Your task to perform on an android device: turn off smart reply in the gmail app Image 0: 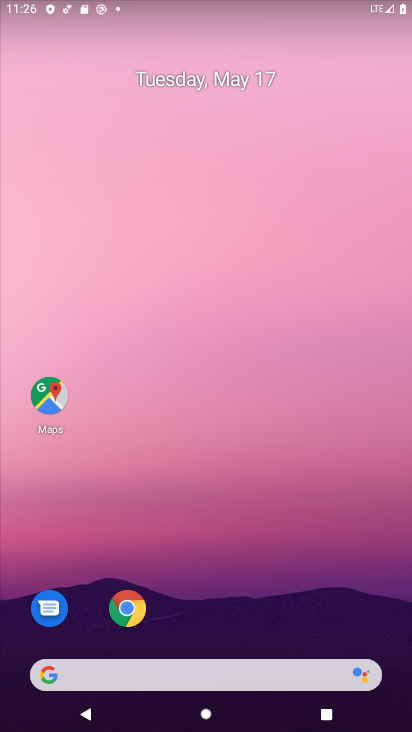
Step 0: drag from (299, 597) to (195, 95)
Your task to perform on an android device: turn off smart reply in the gmail app Image 1: 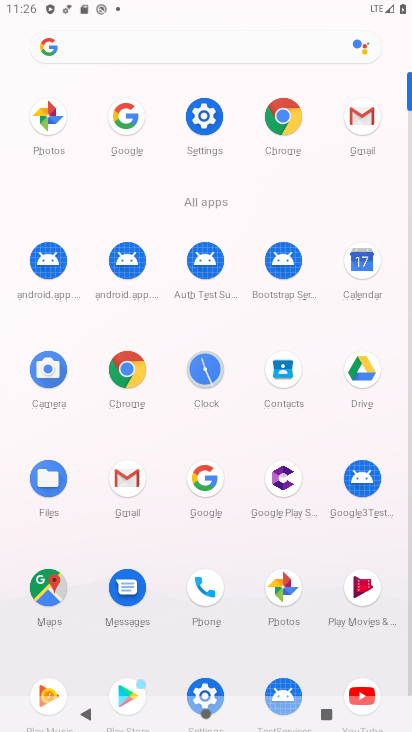
Step 1: click (123, 480)
Your task to perform on an android device: turn off smart reply in the gmail app Image 2: 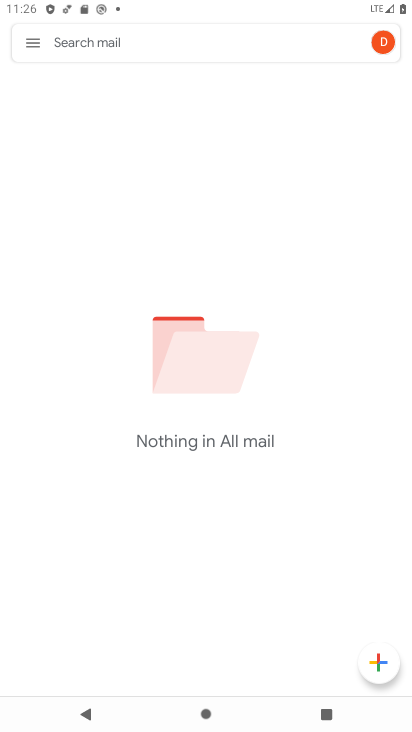
Step 2: click (28, 43)
Your task to perform on an android device: turn off smart reply in the gmail app Image 3: 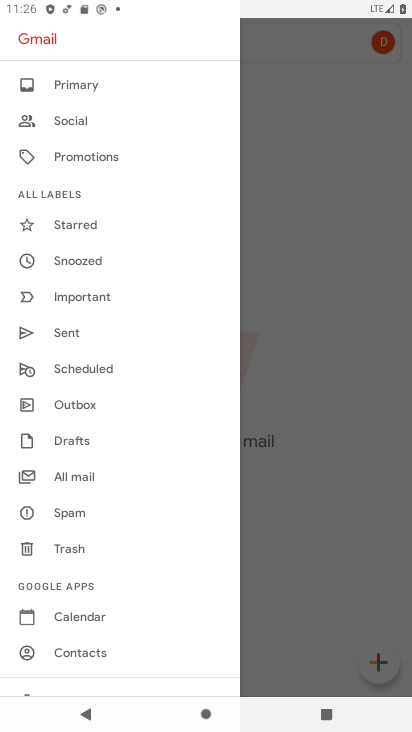
Step 3: drag from (117, 584) to (111, 259)
Your task to perform on an android device: turn off smart reply in the gmail app Image 4: 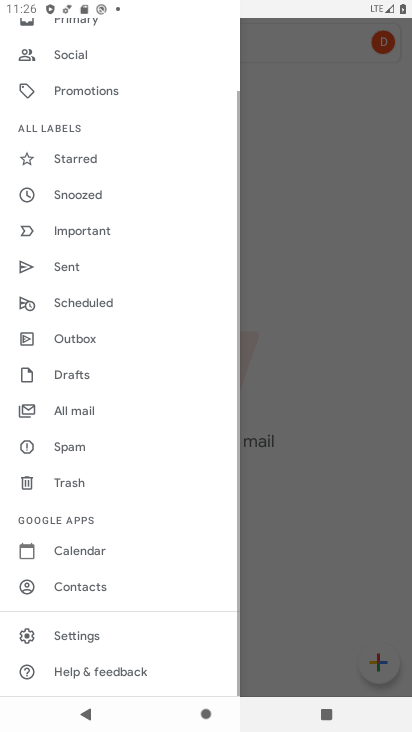
Step 4: click (113, 639)
Your task to perform on an android device: turn off smart reply in the gmail app Image 5: 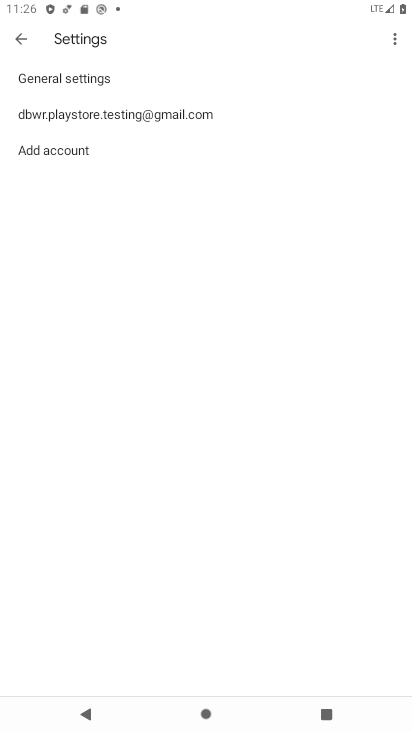
Step 5: click (143, 115)
Your task to perform on an android device: turn off smart reply in the gmail app Image 6: 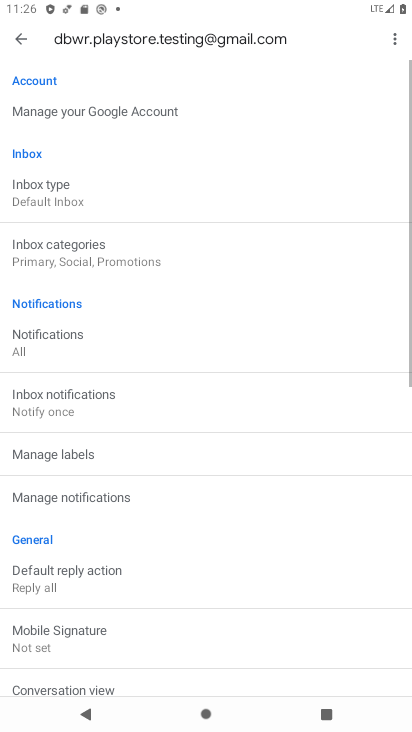
Step 6: drag from (206, 574) to (203, 207)
Your task to perform on an android device: turn off smart reply in the gmail app Image 7: 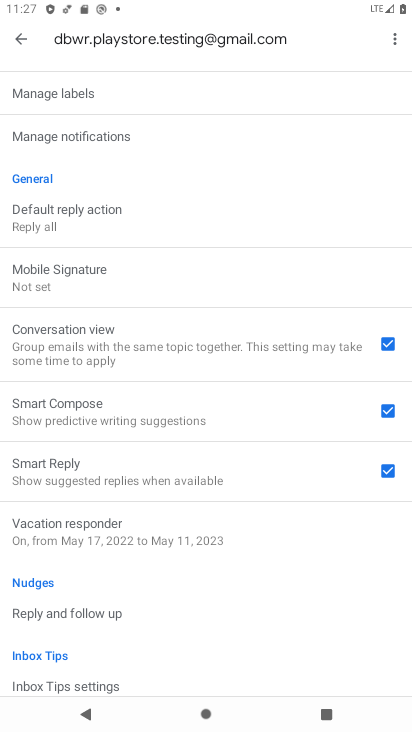
Step 7: click (393, 465)
Your task to perform on an android device: turn off smart reply in the gmail app Image 8: 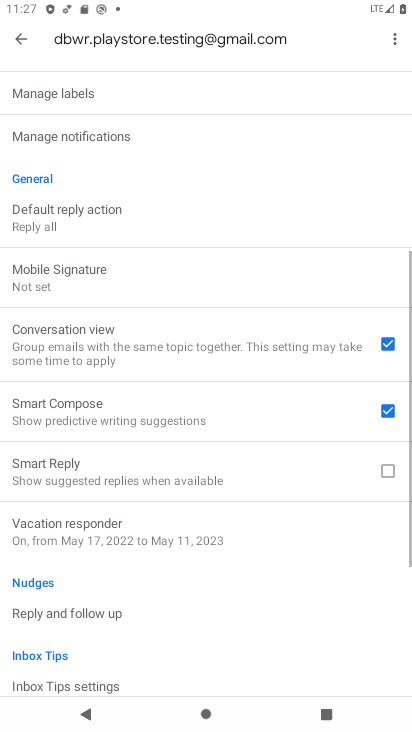
Step 8: task complete